Your task to perform on an android device: How much does the Samsung TV cost? Image 0: 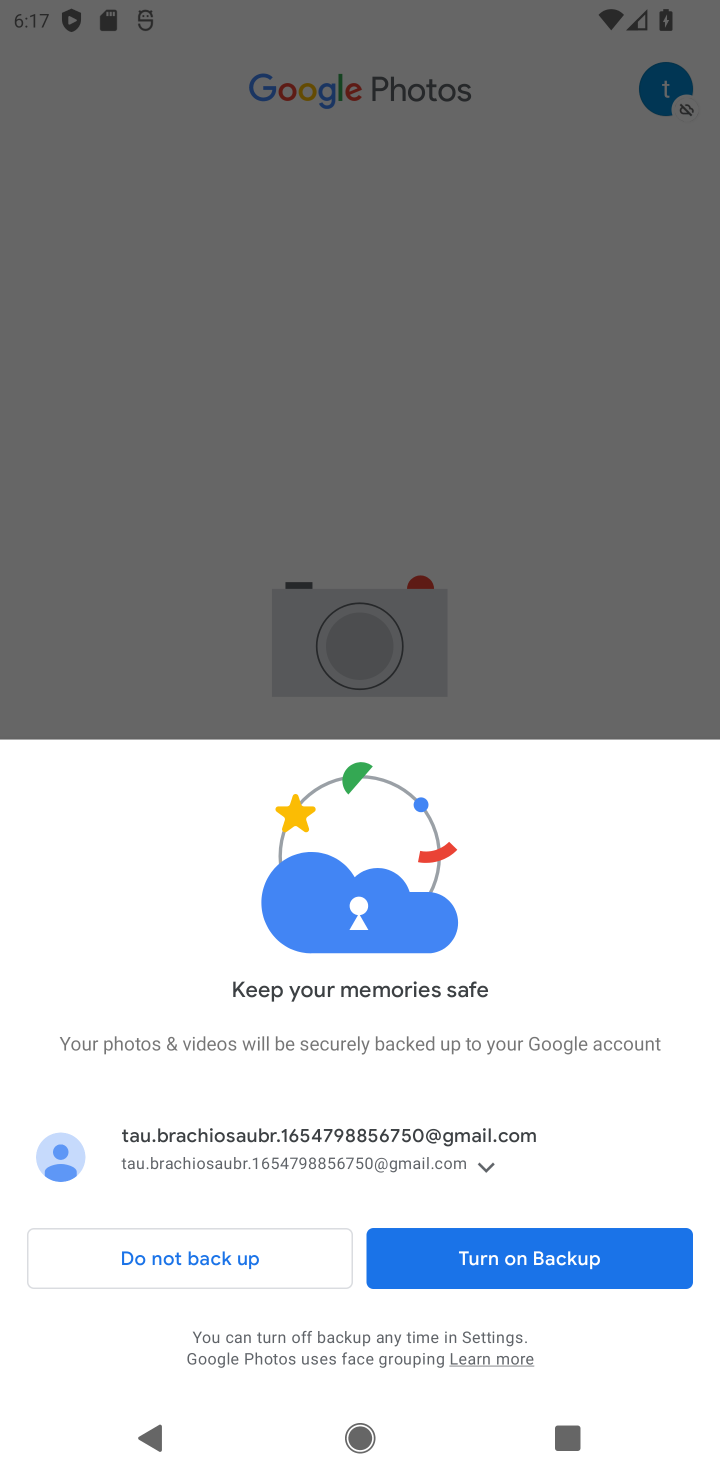
Step 0: press home button
Your task to perform on an android device: How much does the Samsung TV cost? Image 1: 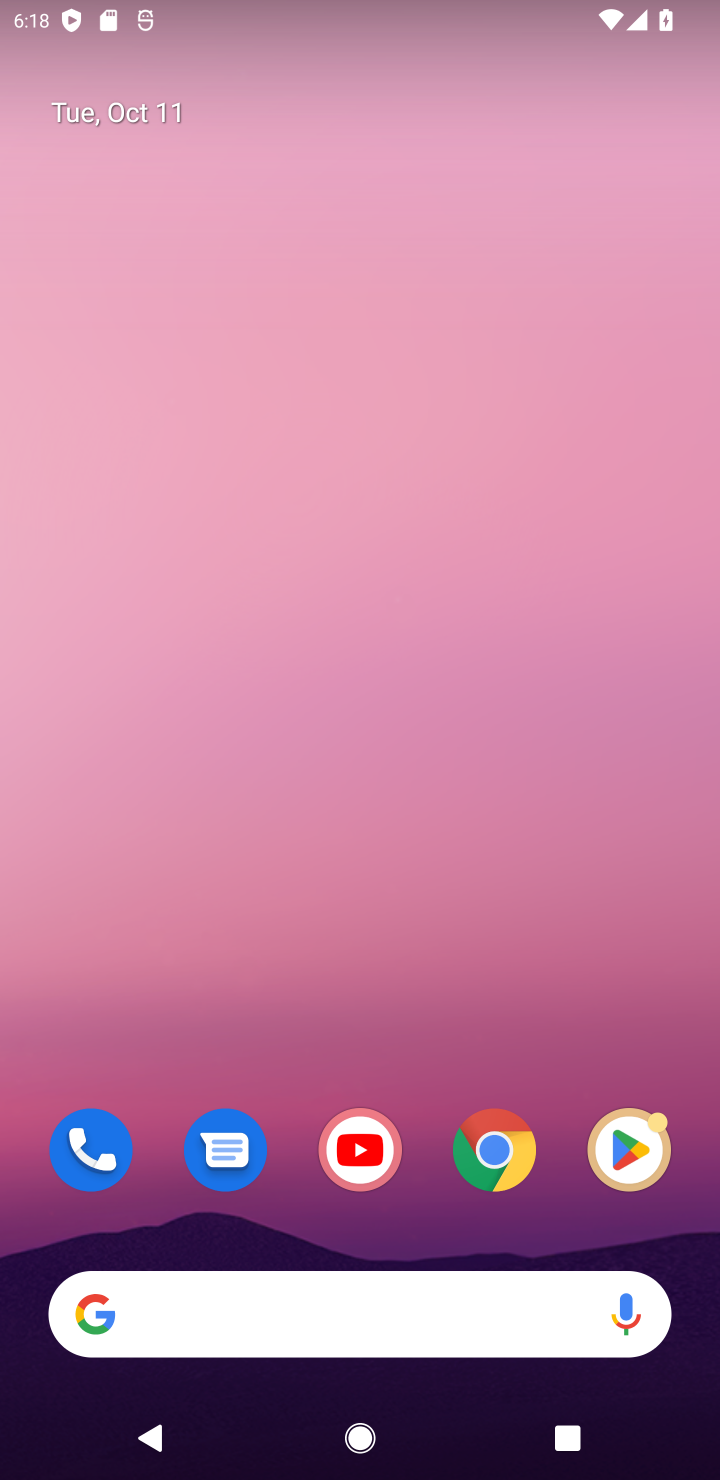
Step 1: click (490, 1148)
Your task to perform on an android device: How much does the Samsung TV cost? Image 2: 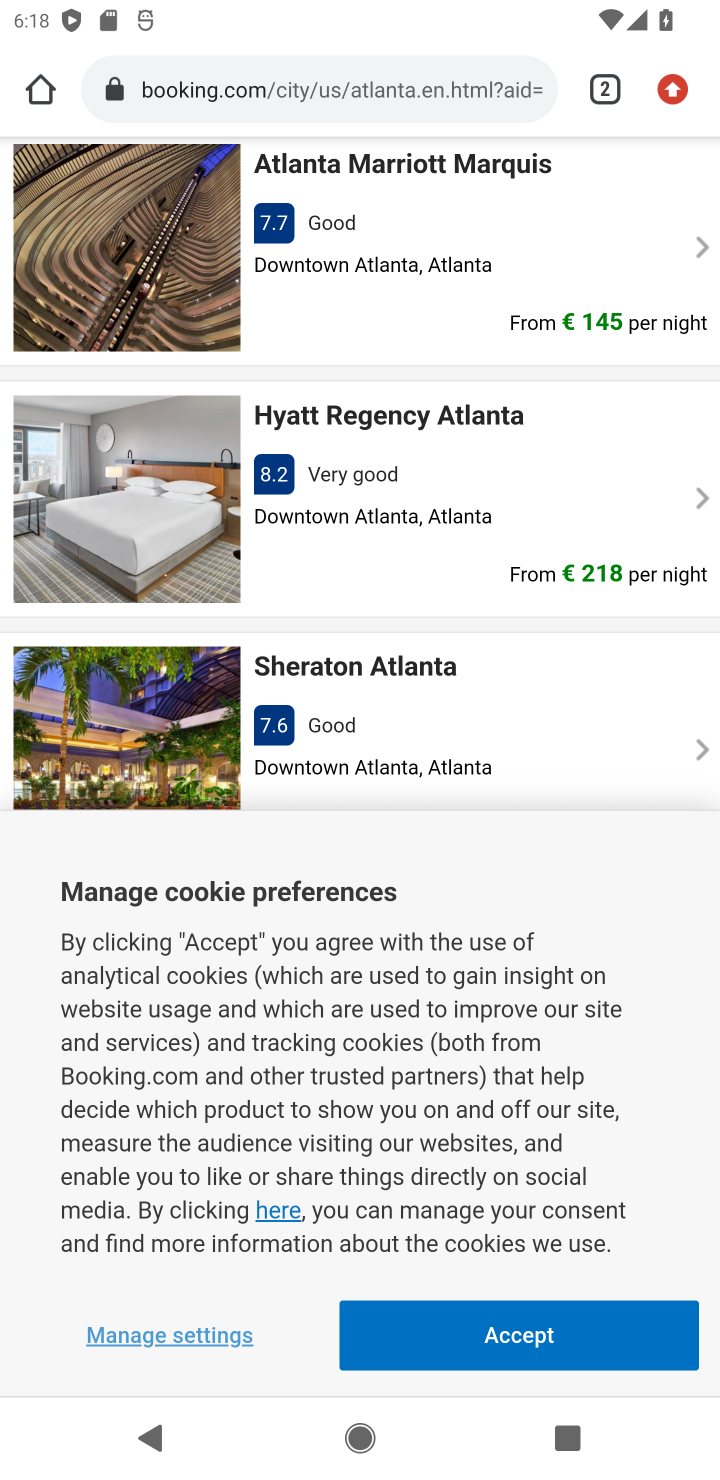
Step 2: click (241, 89)
Your task to perform on an android device: How much does the Samsung TV cost? Image 3: 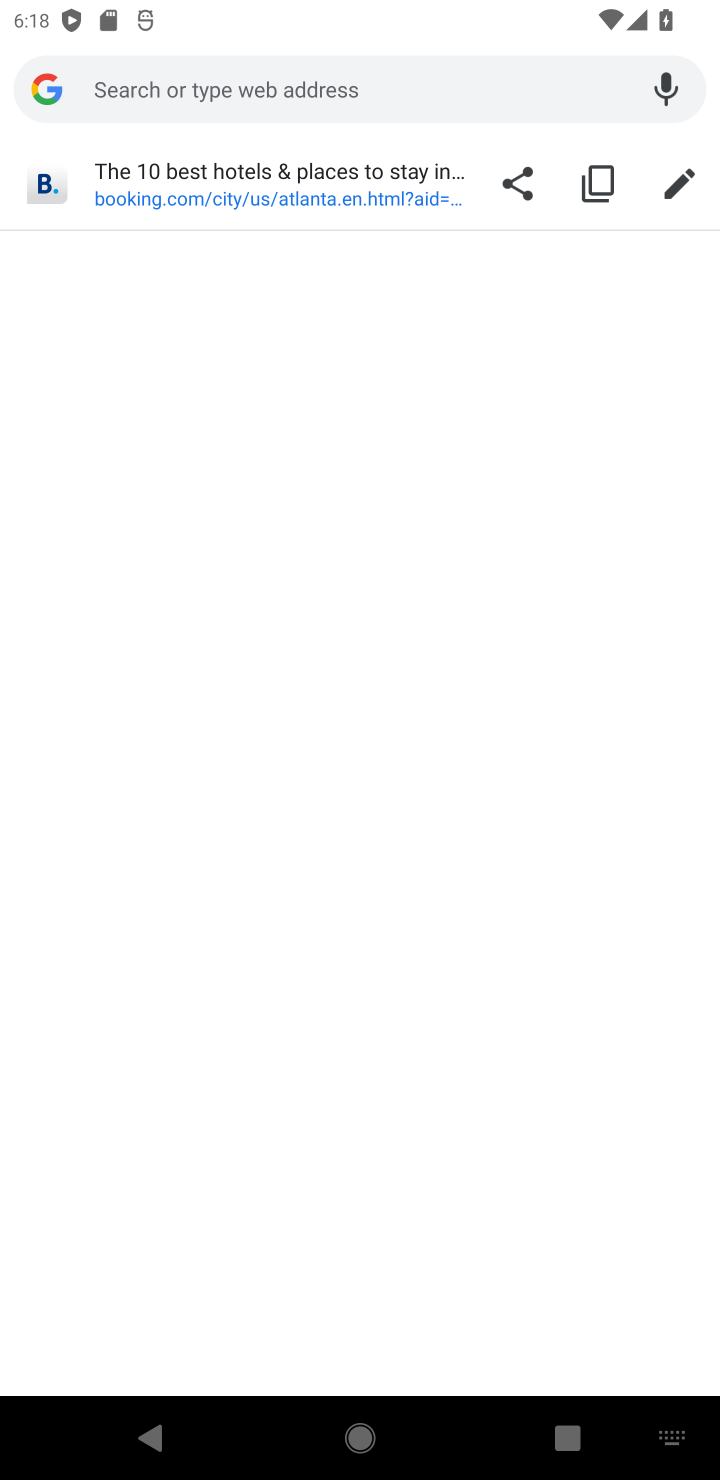
Step 3: type " Samsung TV cost"
Your task to perform on an android device: How much does the Samsung TV cost? Image 4: 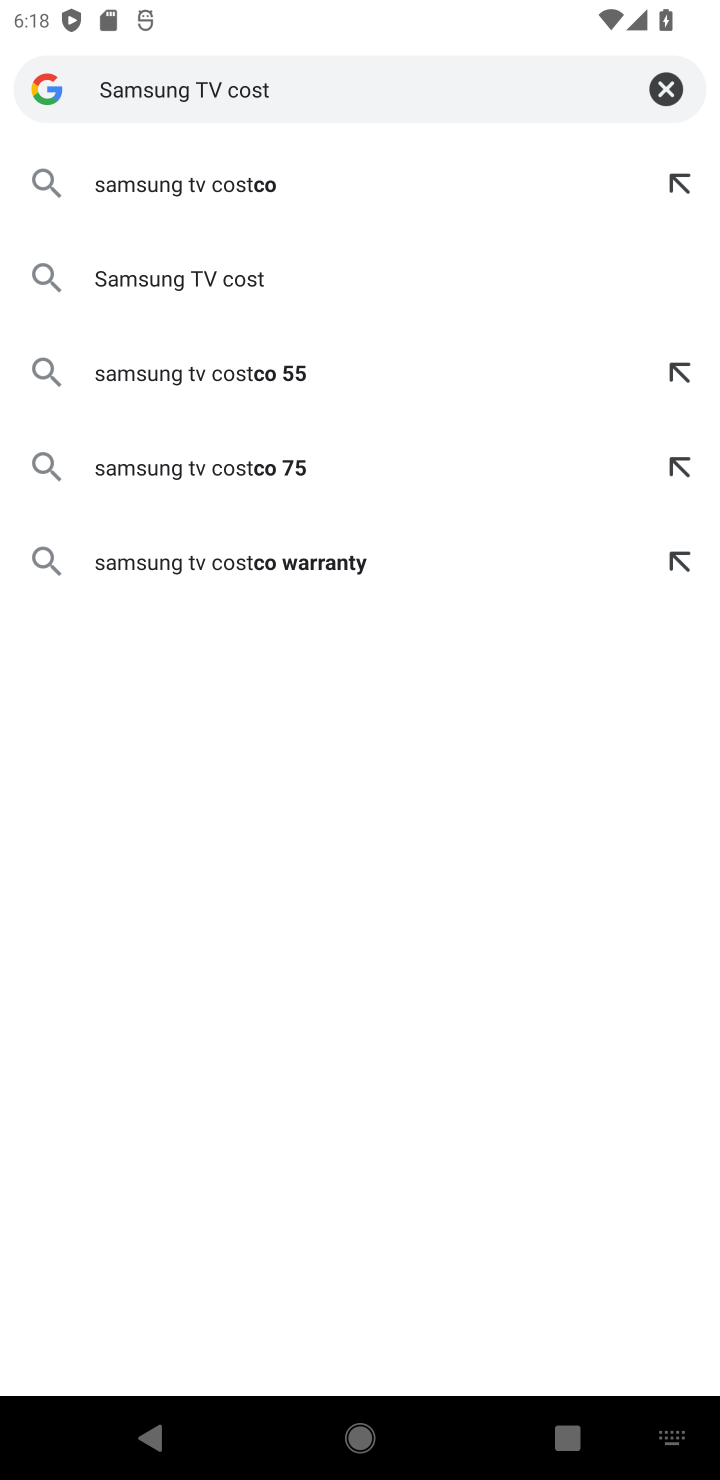
Step 4: click (170, 282)
Your task to perform on an android device: How much does the Samsung TV cost? Image 5: 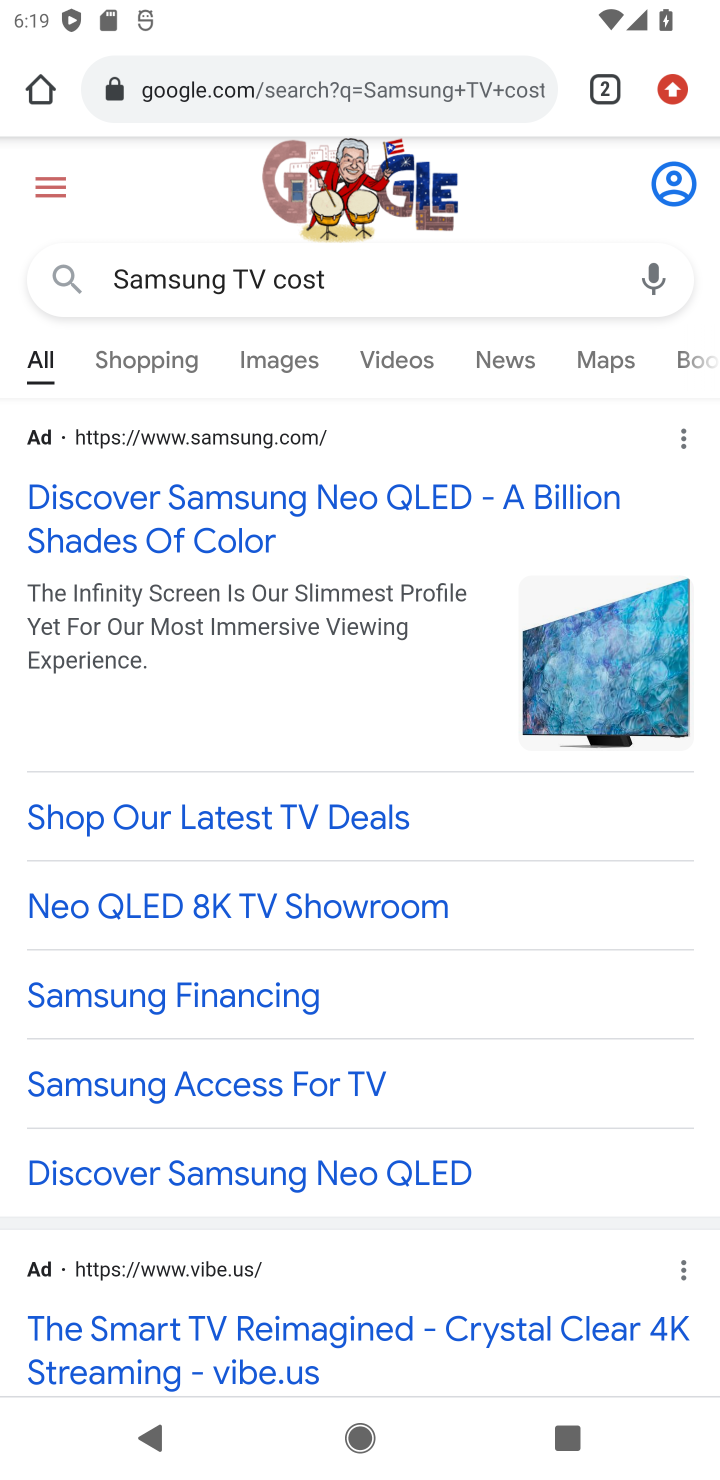
Step 5: click (158, 367)
Your task to perform on an android device: How much does the Samsung TV cost? Image 6: 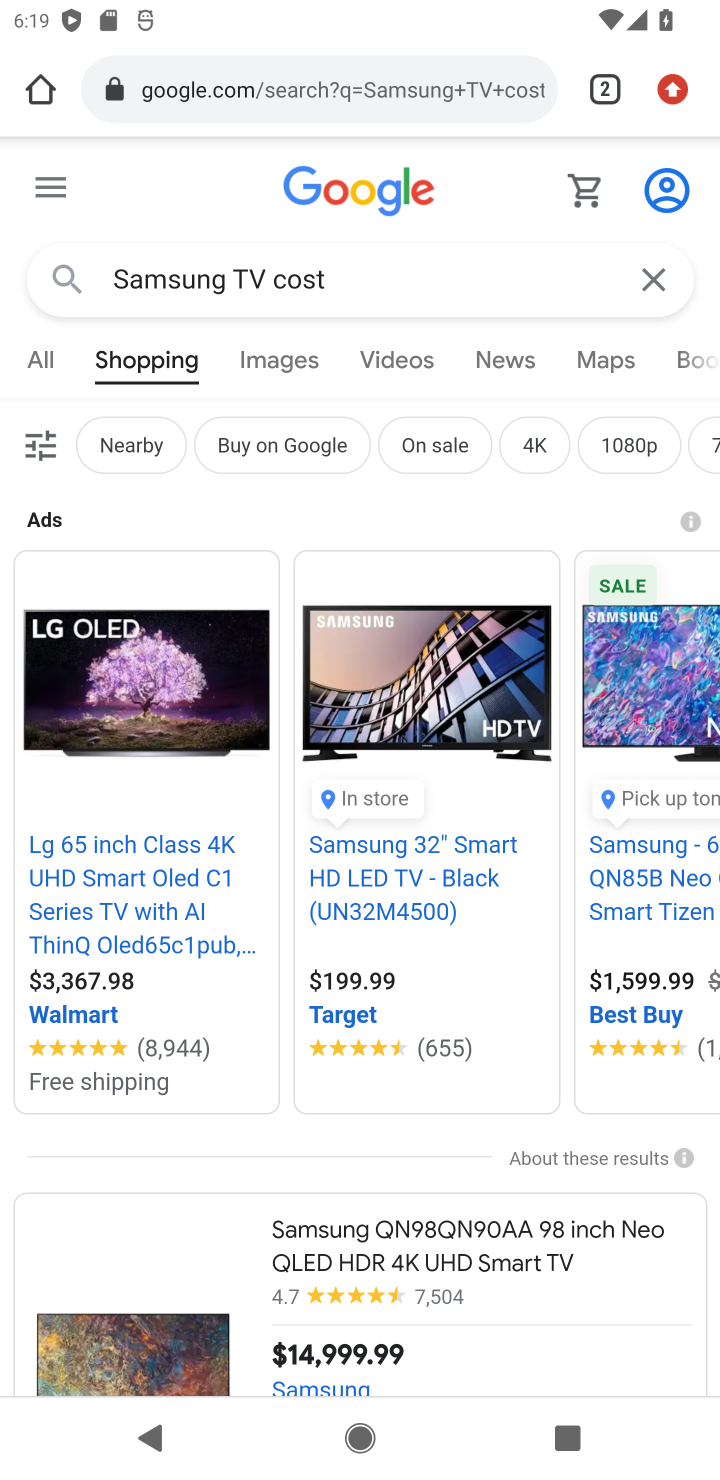
Step 6: task complete